Your task to perform on an android device: Open Chrome and go to settings Image 0: 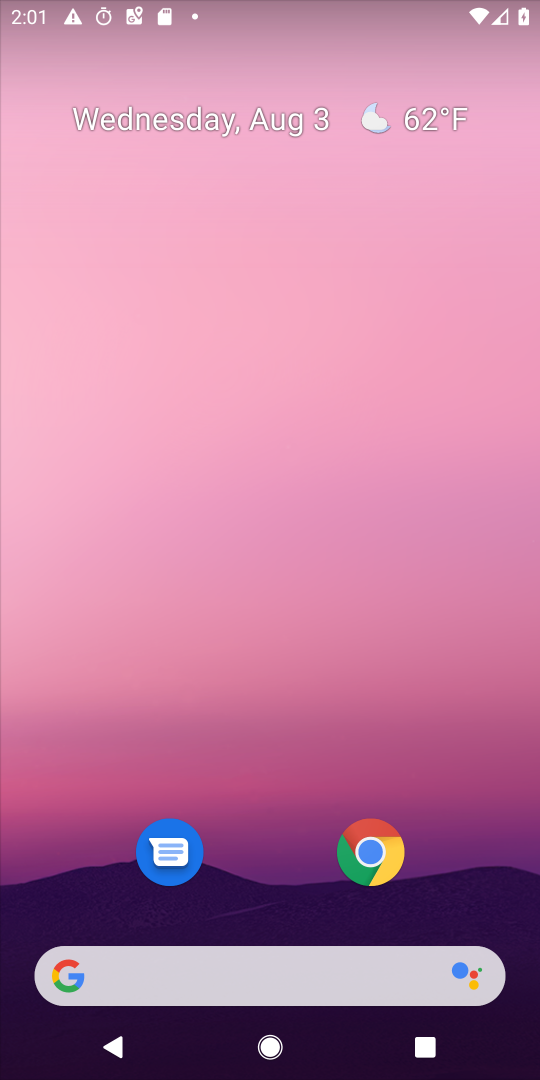
Step 0: drag from (459, 836) to (160, 57)
Your task to perform on an android device: Open Chrome and go to settings Image 1: 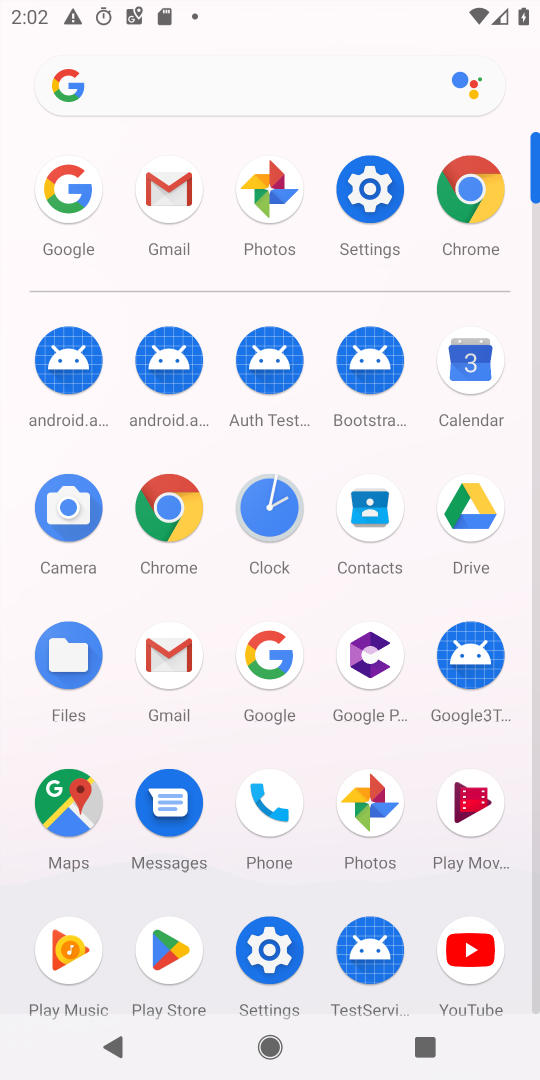
Step 1: click (164, 492)
Your task to perform on an android device: Open Chrome and go to settings Image 2: 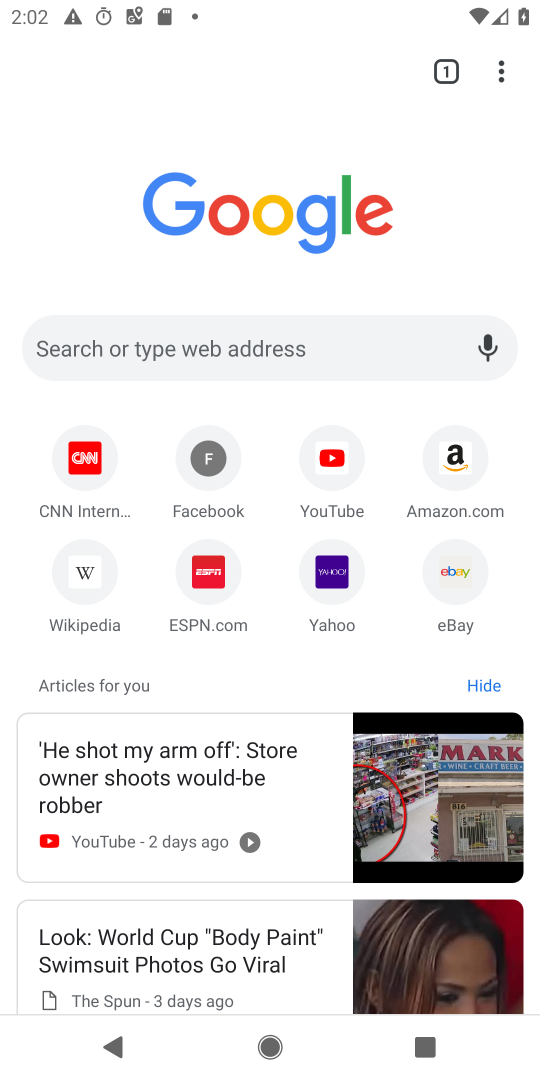
Step 2: click (501, 66)
Your task to perform on an android device: Open Chrome and go to settings Image 3: 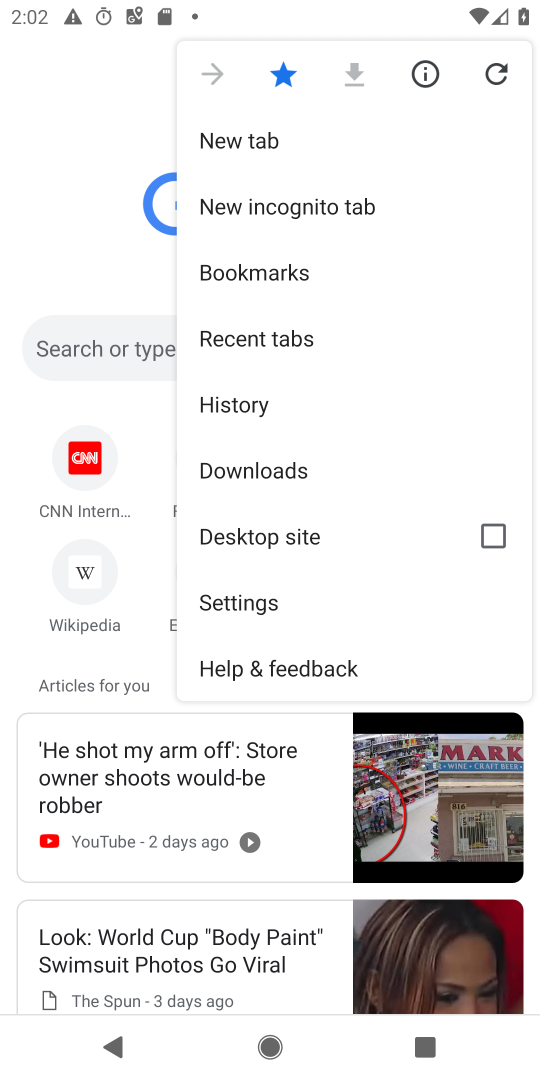
Step 3: click (271, 615)
Your task to perform on an android device: Open Chrome and go to settings Image 4: 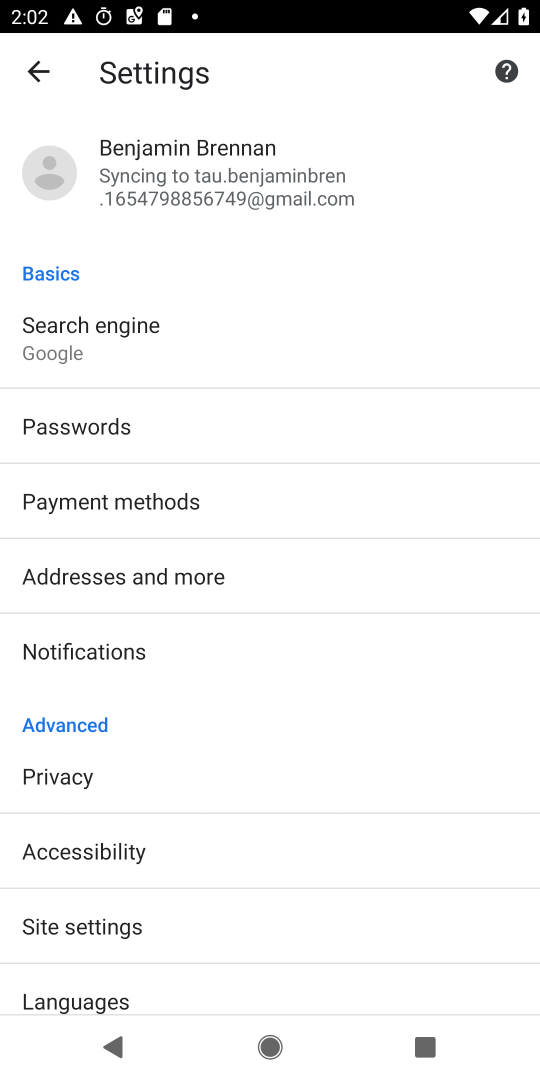
Step 4: task complete